Your task to perform on an android device: Open Android settings Image 0: 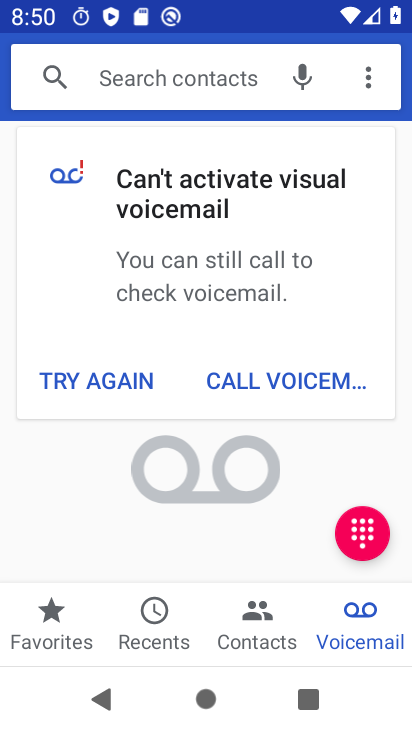
Step 0: press home button
Your task to perform on an android device: Open Android settings Image 1: 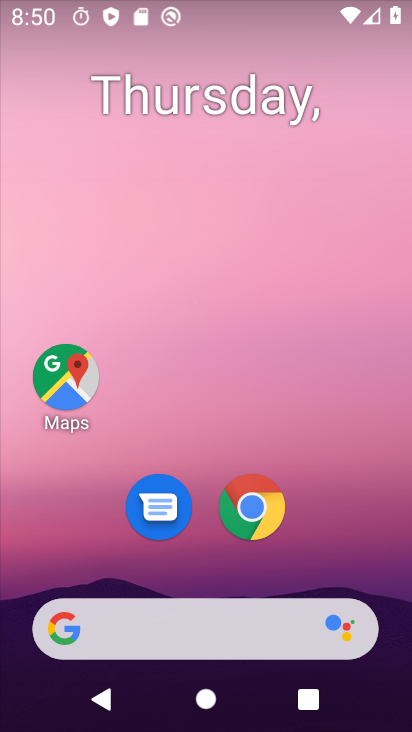
Step 1: drag from (206, 576) to (272, 63)
Your task to perform on an android device: Open Android settings Image 2: 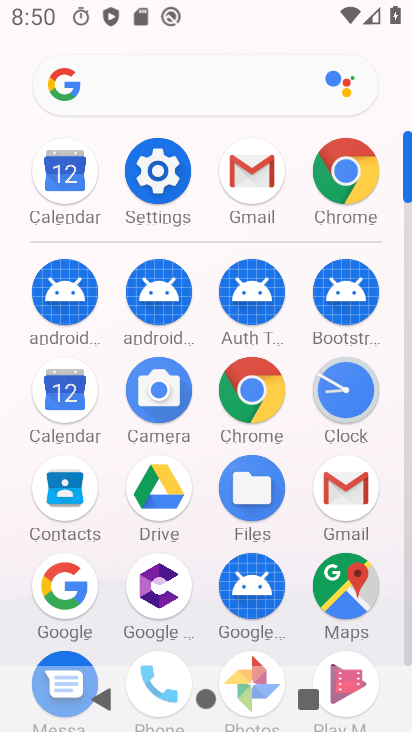
Step 2: click (177, 183)
Your task to perform on an android device: Open Android settings Image 3: 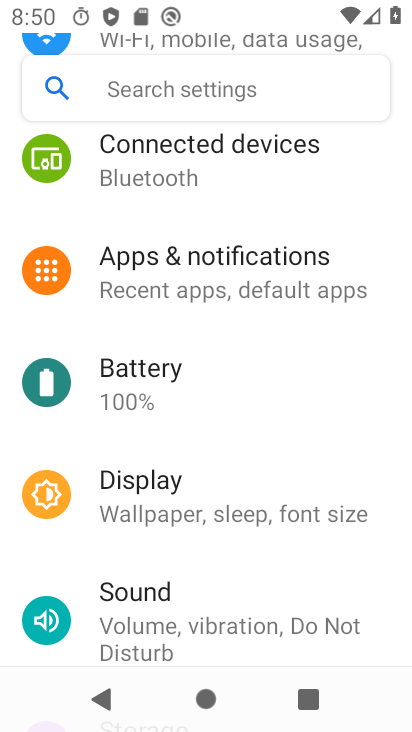
Step 3: drag from (159, 476) to (266, 52)
Your task to perform on an android device: Open Android settings Image 4: 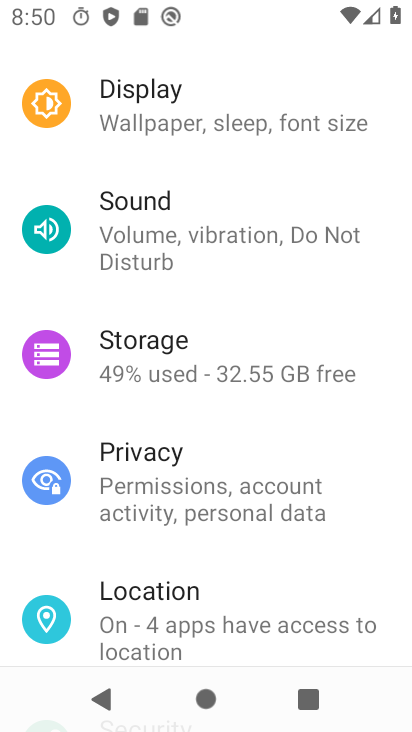
Step 4: drag from (158, 482) to (262, 29)
Your task to perform on an android device: Open Android settings Image 5: 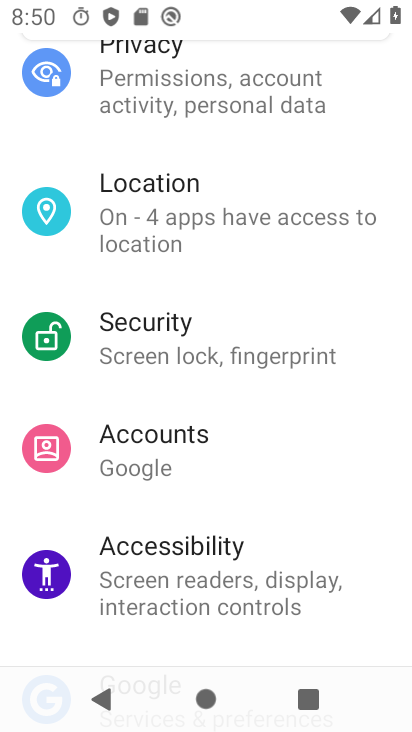
Step 5: drag from (234, 474) to (282, 6)
Your task to perform on an android device: Open Android settings Image 6: 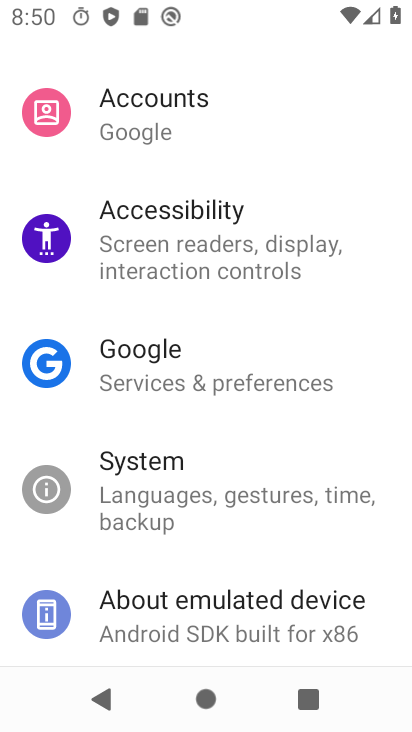
Step 6: click (162, 588)
Your task to perform on an android device: Open Android settings Image 7: 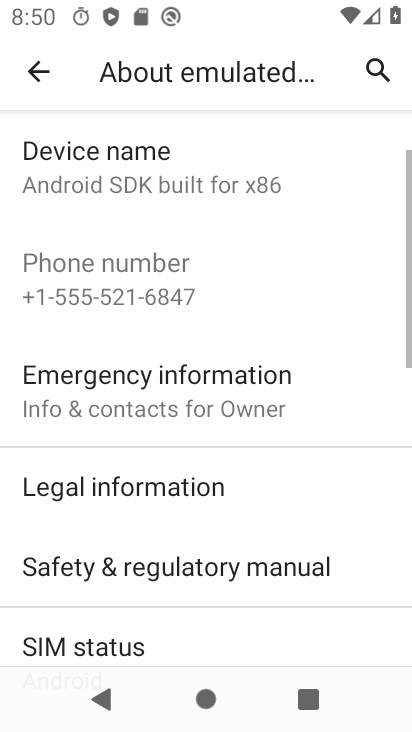
Step 7: drag from (159, 601) to (215, 186)
Your task to perform on an android device: Open Android settings Image 8: 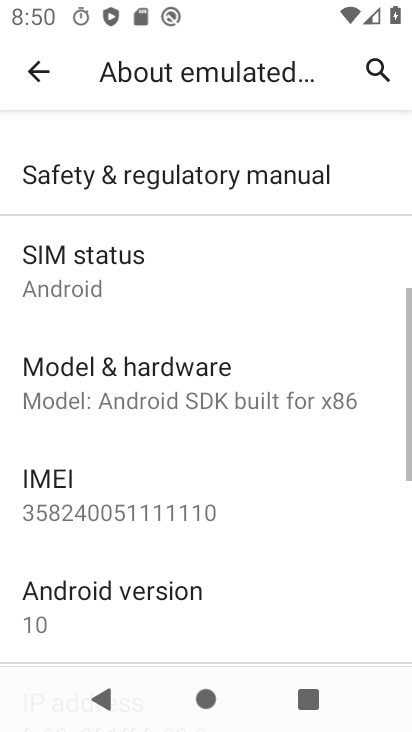
Step 8: click (109, 588)
Your task to perform on an android device: Open Android settings Image 9: 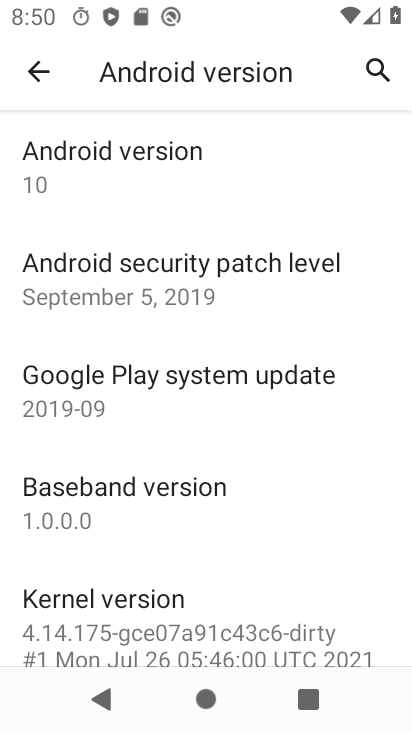
Step 9: task complete